Your task to perform on an android device: Open the Play Movies app and select the watchlist tab. Image 0: 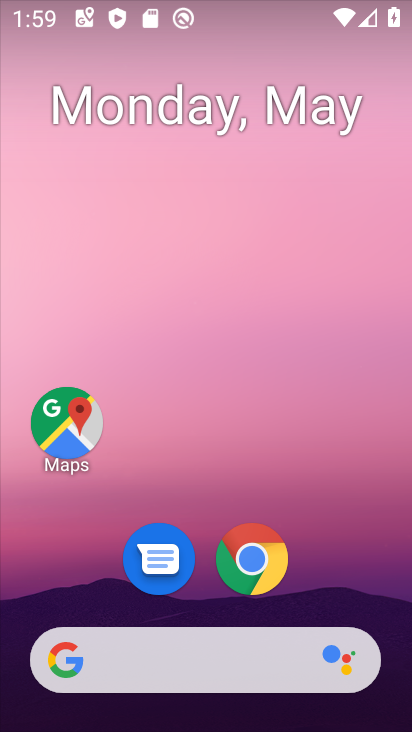
Step 0: drag from (198, 721) to (220, 87)
Your task to perform on an android device: Open the Play Movies app and select the watchlist tab. Image 1: 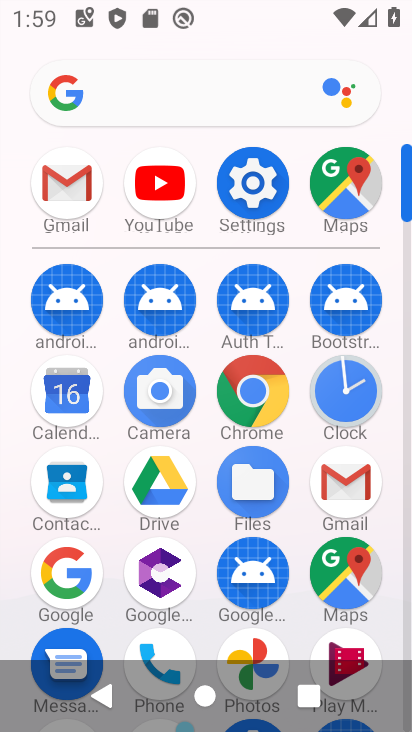
Step 1: click (344, 648)
Your task to perform on an android device: Open the Play Movies app and select the watchlist tab. Image 2: 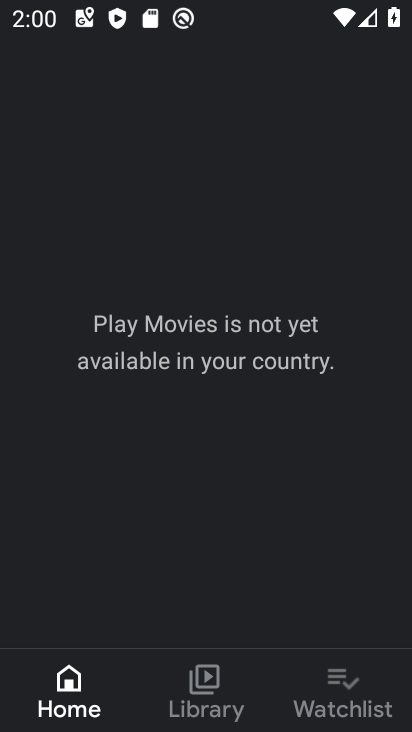
Step 2: click (357, 679)
Your task to perform on an android device: Open the Play Movies app and select the watchlist tab. Image 3: 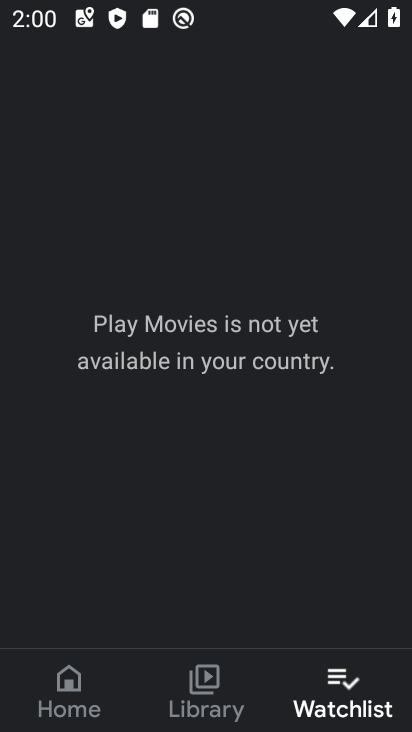
Step 3: task complete